Your task to perform on an android device: Open the stopwatch Image 0: 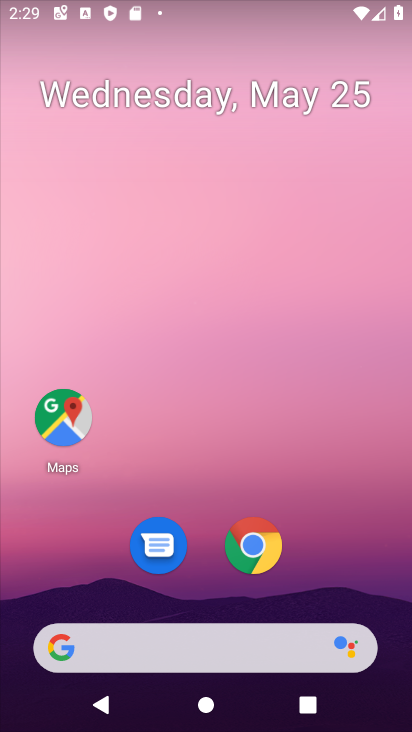
Step 0: drag from (343, 607) to (296, 75)
Your task to perform on an android device: Open the stopwatch Image 1: 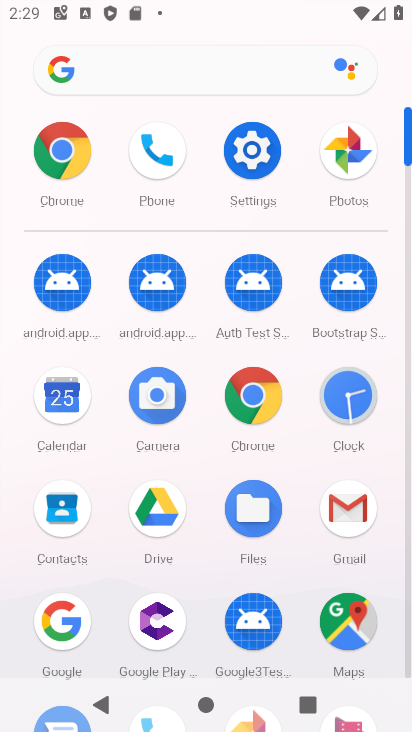
Step 1: click (357, 423)
Your task to perform on an android device: Open the stopwatch Image 2: 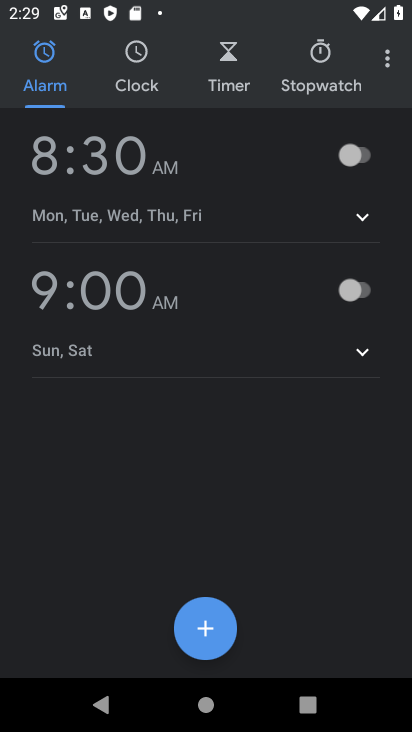
Step 2: click (312, 70)
Your task to perform on an android device: Open the stopwatch Image 3: 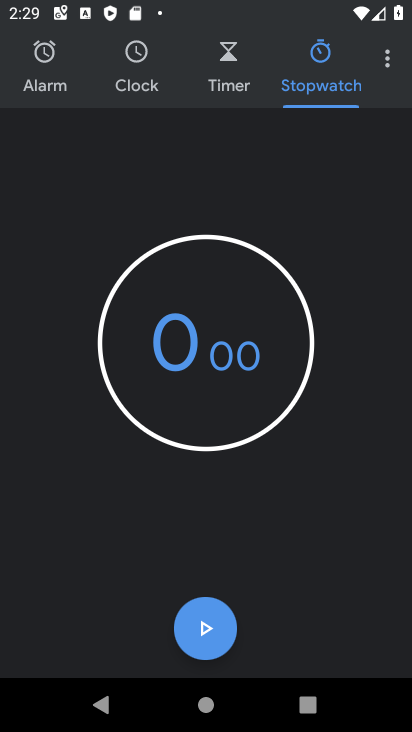
Step 3: task complete